Your task to perform on an android device: turn off location history Image 0: 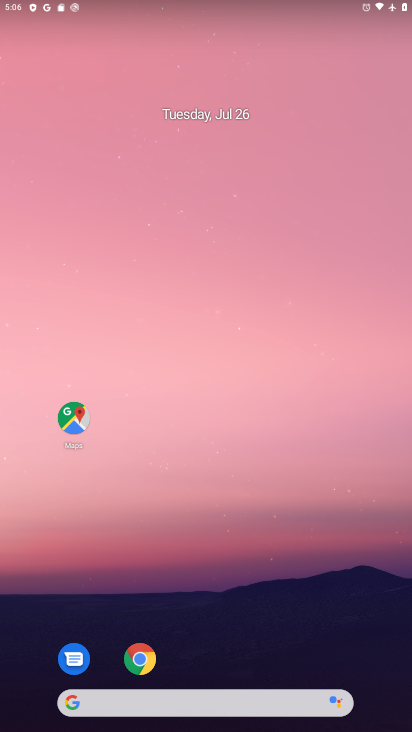
Step 0: drag from (224, 667) to (257, 58)
Your task to perform on an android device: turn off location history Image 1: 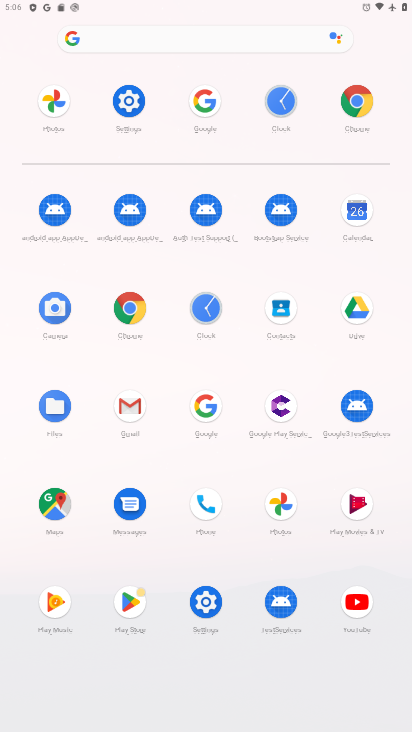
Step 1: click (127, 96)
Your task to perform on an android device: turn off location history Image 2: 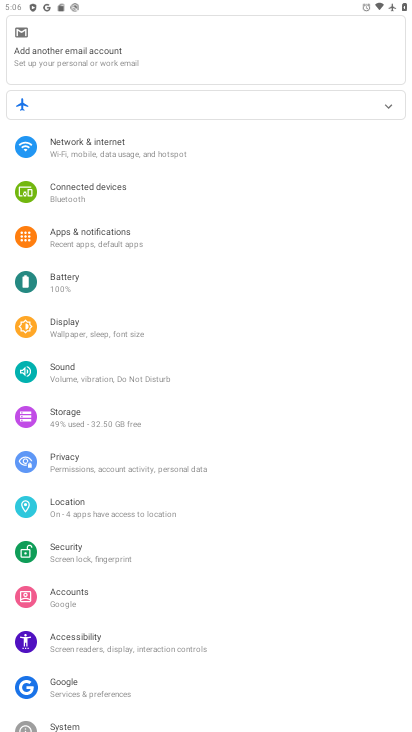
Step 2: click (110, 503)
Your task to perform on an android device: turn off location history Image 3: 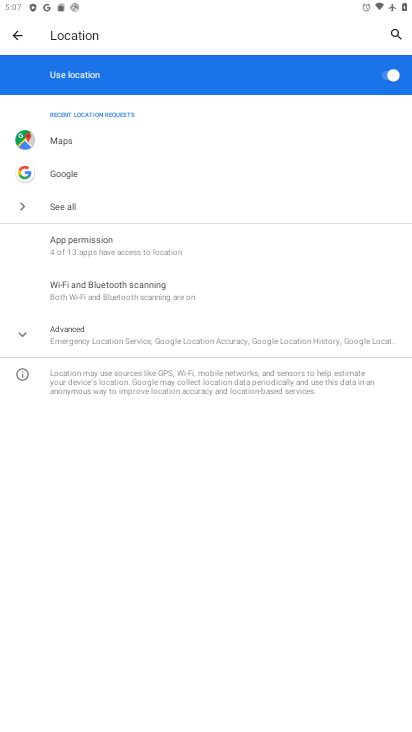
Step 3: click (74, 334)
Your task to perform on an android device: turn off location history Image 4: 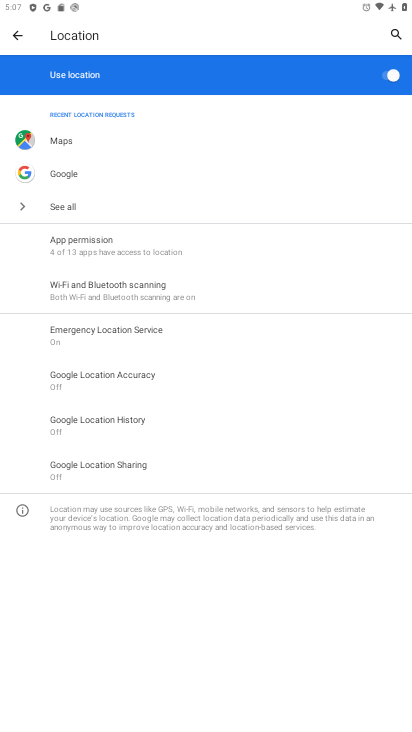
Step 4: click (138, 422)
Your task to perform on an android device: turn off location history Image 5: 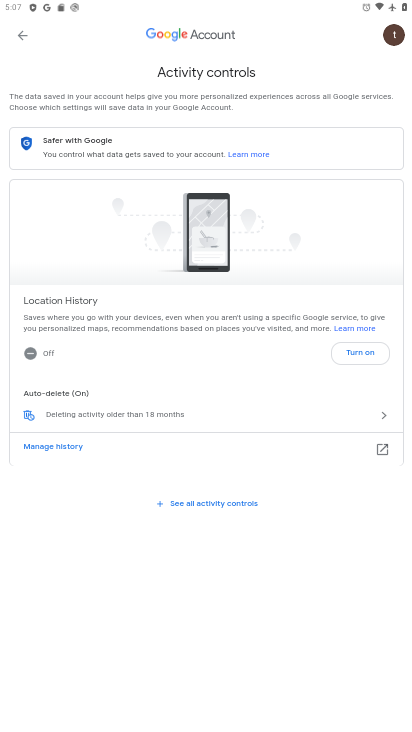
Step 5: task complete